Your task to perform on an android device: see sites visited before in the chrome app Image 0: 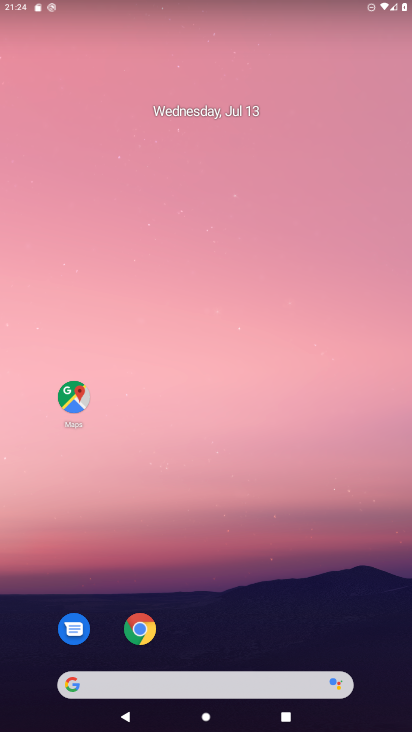
Step 0: drag from (299, 634) to (267, 103)
Your task to perform on an android device: see sites visited before in the chrome app Image 1: 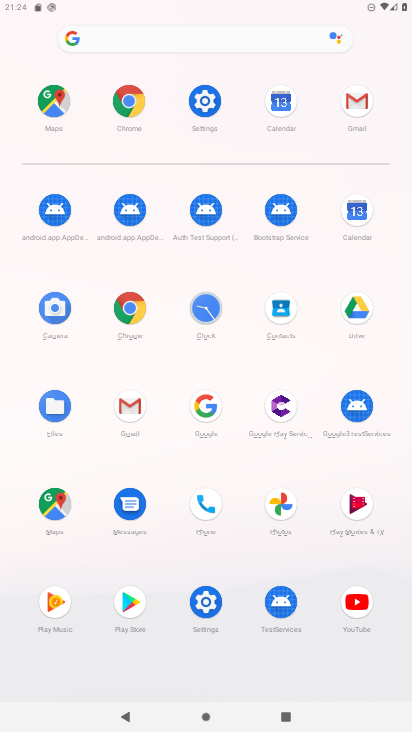
Step 1: click (130, 308)
Your task to perform on an android device: see sites visited before in the chrome app Image 2: 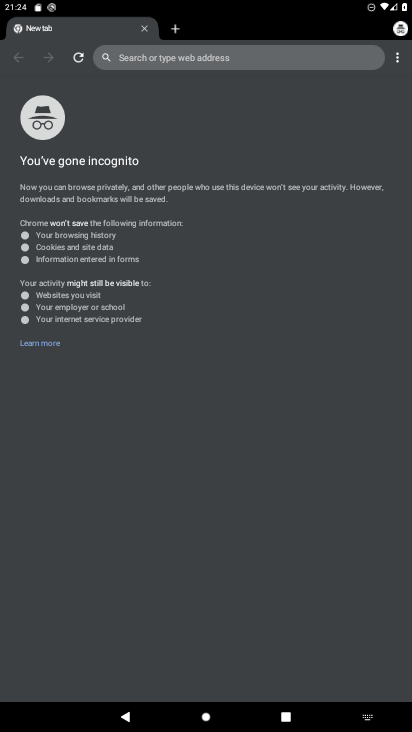
Step 2: drag from (402, 50) to (303, 148)
Your task to perform on an android device: see sites visited before in the chrome app Image 3: 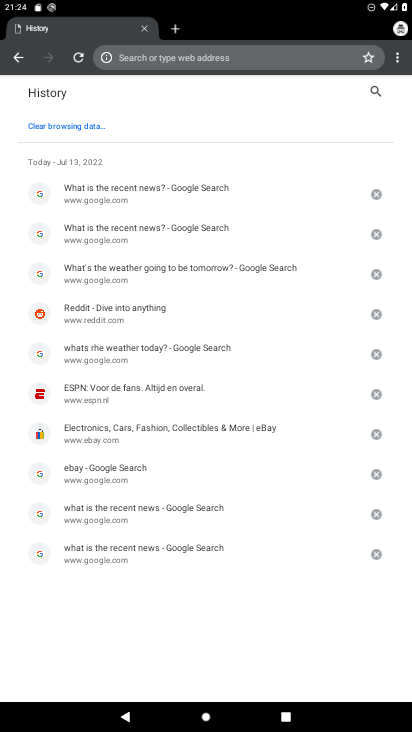
Step 3: click (123, 186)
Your task to perform on an android device: see sites visited before in the chrome app Image 4: 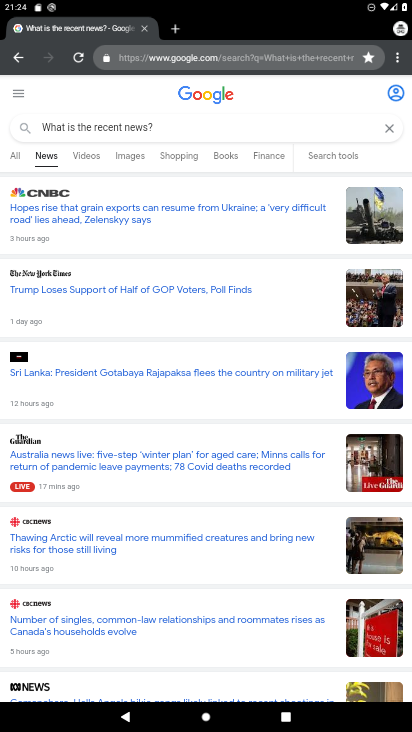
Step 4: task complete